Your task to perform on an android device: stop showing notifications on the lock screen Image 0: 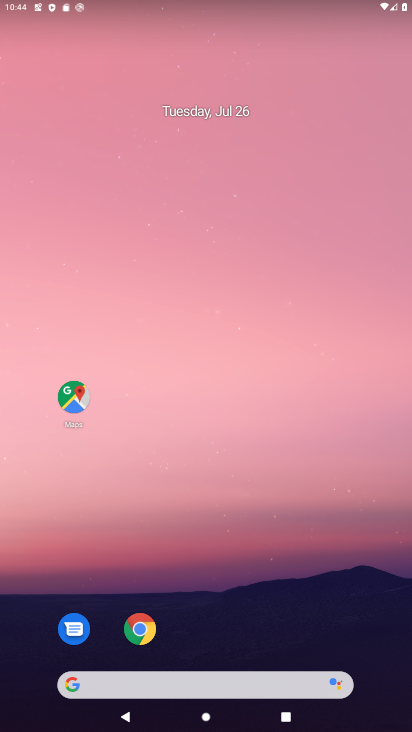
Step 0: drag from (252, 623) to (252, 284)
Your task to perform on an android device: stop showing notifications on the lock screen Image 1: 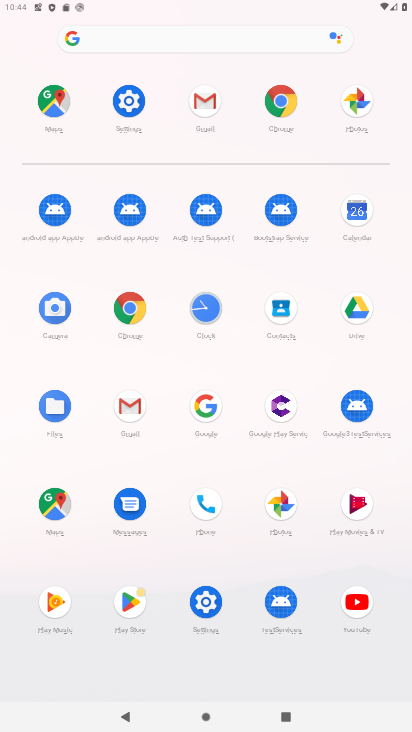
Step 1: click (125, 101)
Your task to perform on an android device: stop showing notifications on the lock screen Image 2: 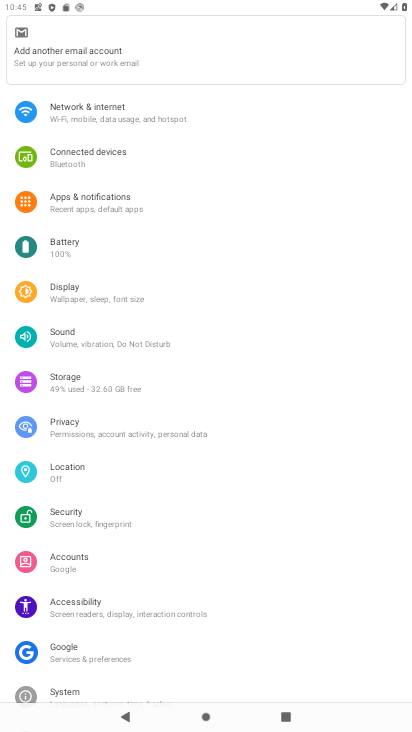
Step 2: click (148, 218)
Your task to perform on an android device: stop showing notifications on the lock screen Image 3: 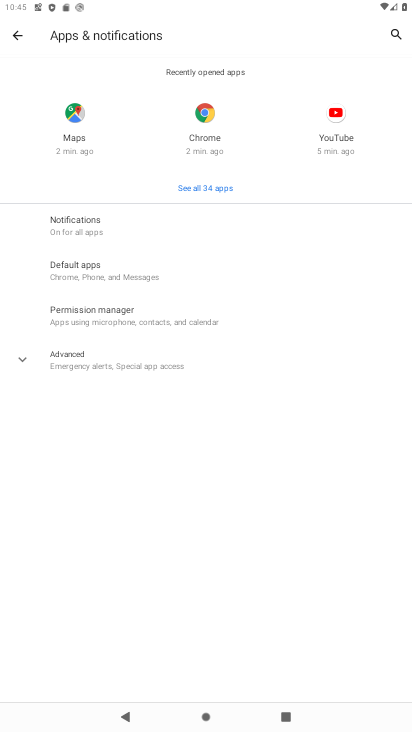
Step 3: click (122, 231)
Your task to perform on an android device: stop showing notifications on the lock screen Image 4: 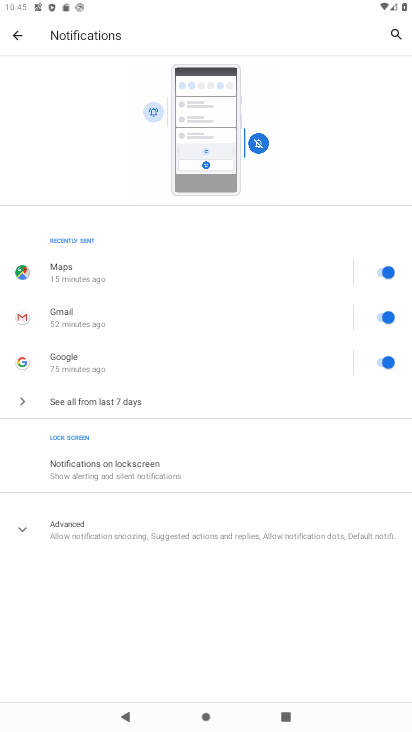
Step 4: click (140, 459)
Your task to perform on an android device: stop showing notifications on the lock screen Image 5: 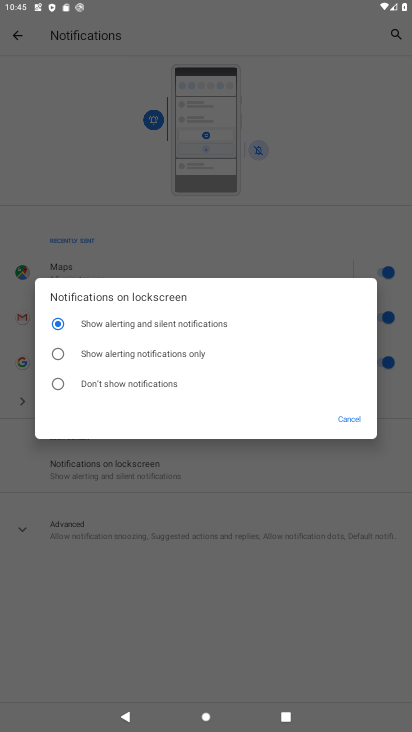
Step 5: click (114, 386)
Your task to perform on an android device: stop showing notifications on the lock screen Image 6: 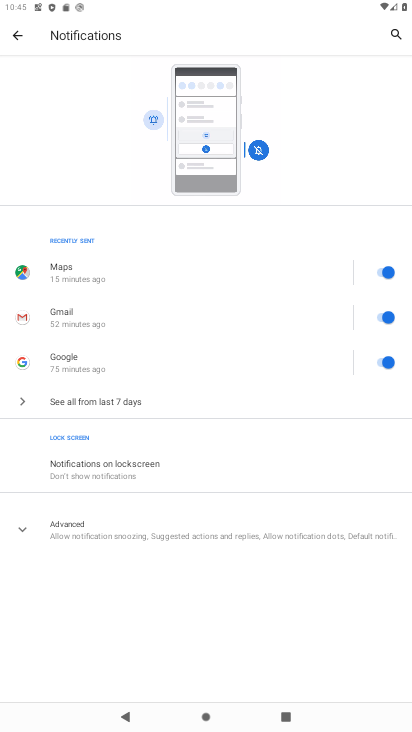
Step 6: task complete